Your task to perform on an android device: change the clock display to digital Image 0: 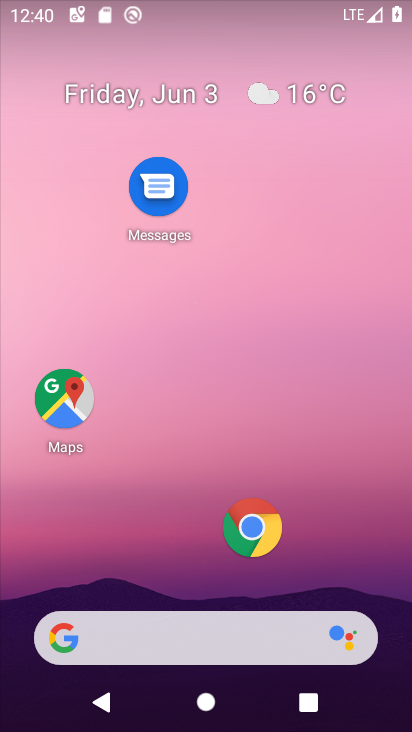
Step 0: drag from (212, 517) to (229, 64)
Your task to perform on an android device: change the clock display to digital Image 1: 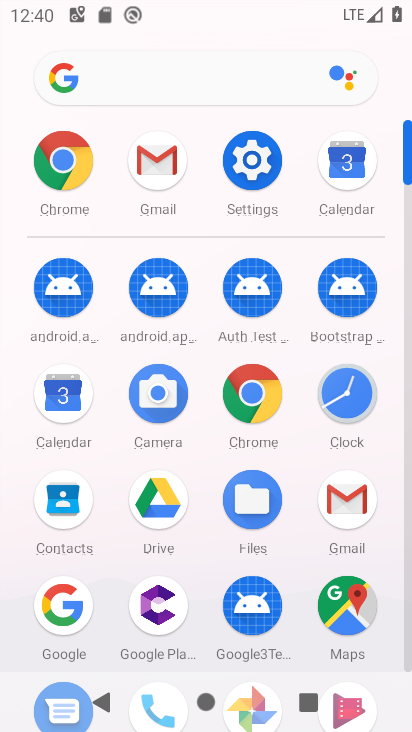
Step 1: click (344, 389)
Your task to perform on an android device: change the clock display to digital Image 2: 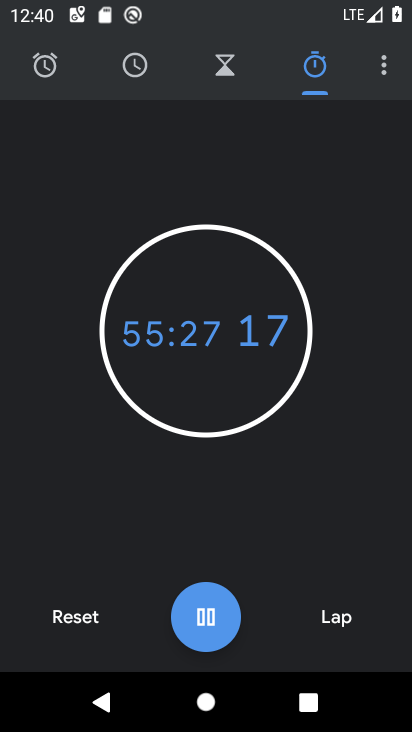
Step 2: click (71, 612)
Your task to perform on an android device: change the clock display to digital Image 3: 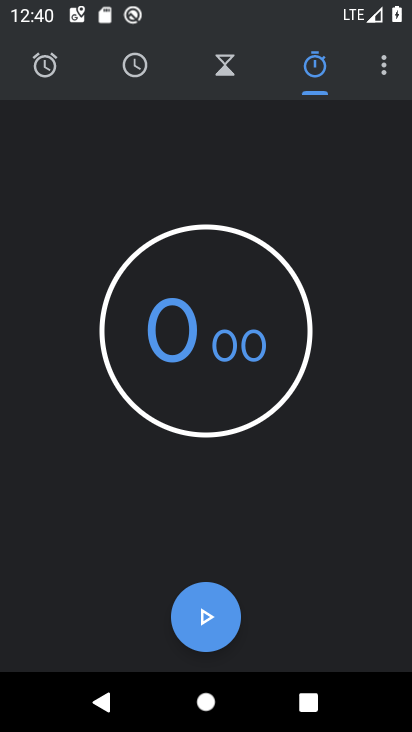
Step 3: click (387, 59)
Your task to perform on an android device: change the clock display to digital Image 4: 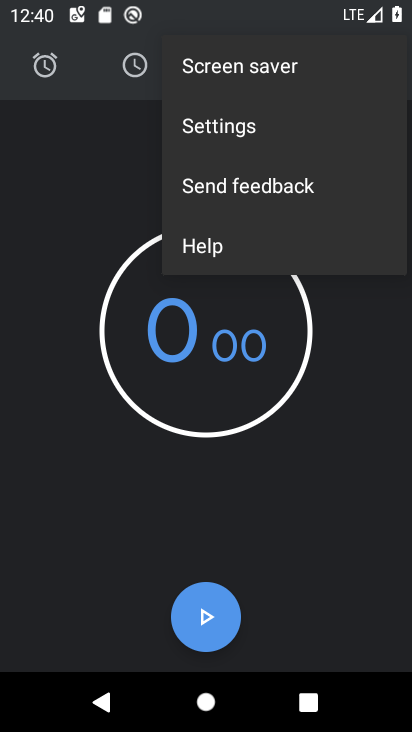
Step 4: click (261, 123)
Your task to perform on an android device: change the clock display to digital Image 5: 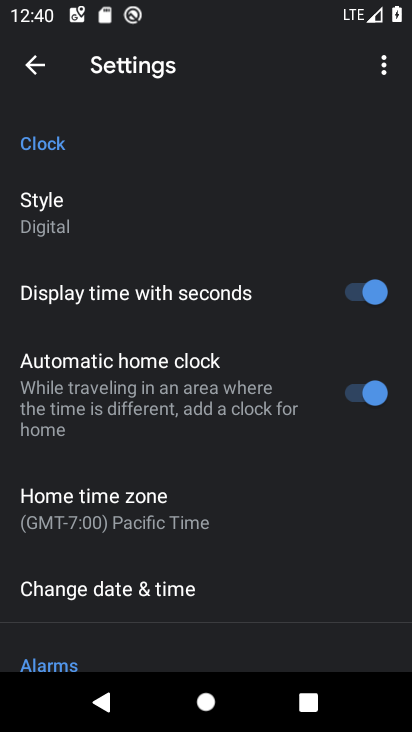
Step 5: click (88, 215)
Your task to perform on an android device: change the clock display to digital Image 6: 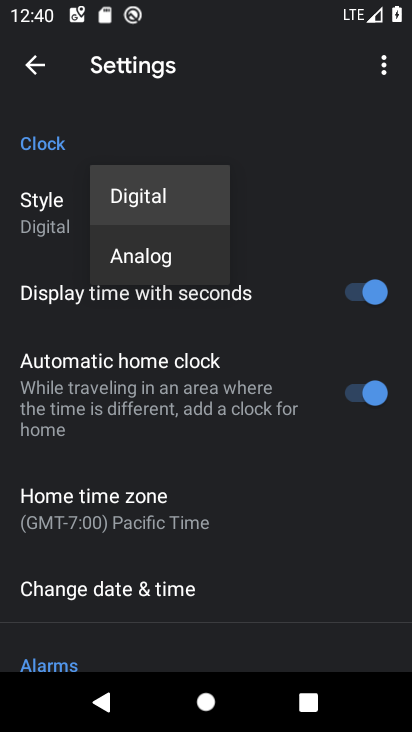
Step 6: click (120, 202)
Your task to perform on an android device: change the clock display to digital Image 7: 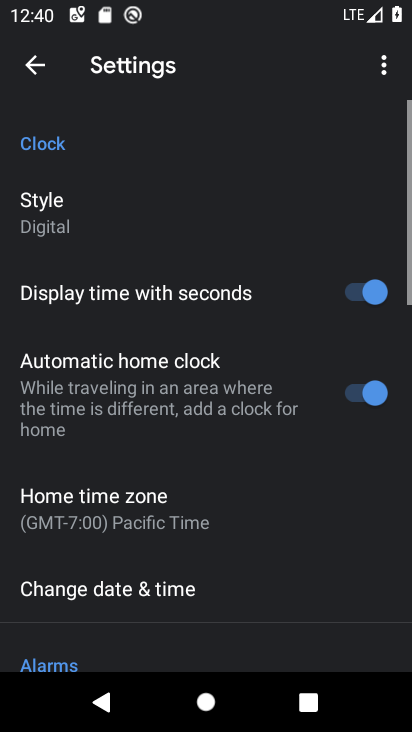
Step 7: task complete